Your task to perform on an android device: check storage Image 0: 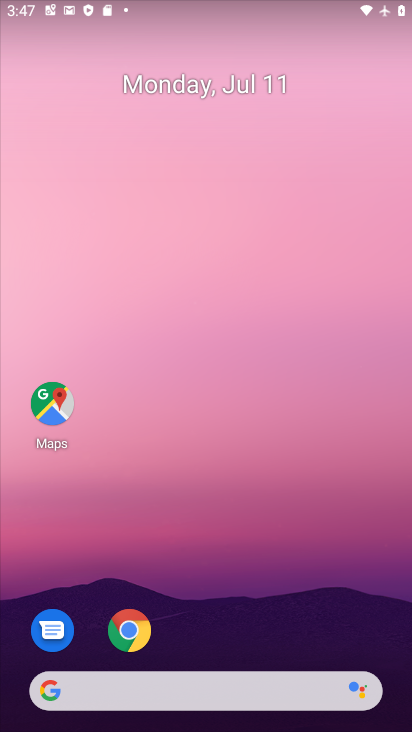
Step 0: drag from (290, 711) to (177, 289)
Your task to perform on an android device: check storage Image 1: 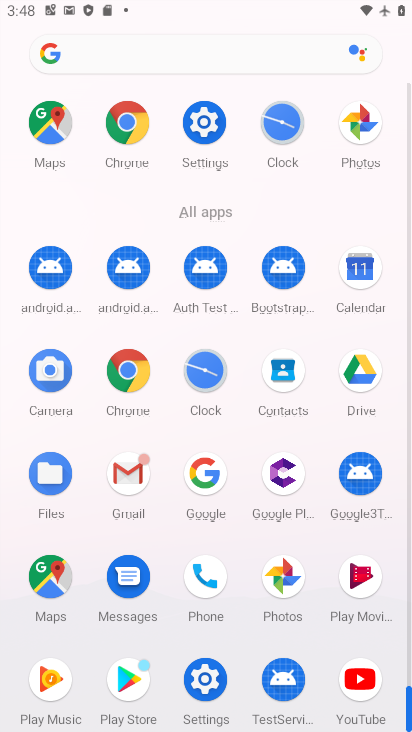
Step 1: click (198, 135)
Your task to perform on an android device: check storage Image 2: 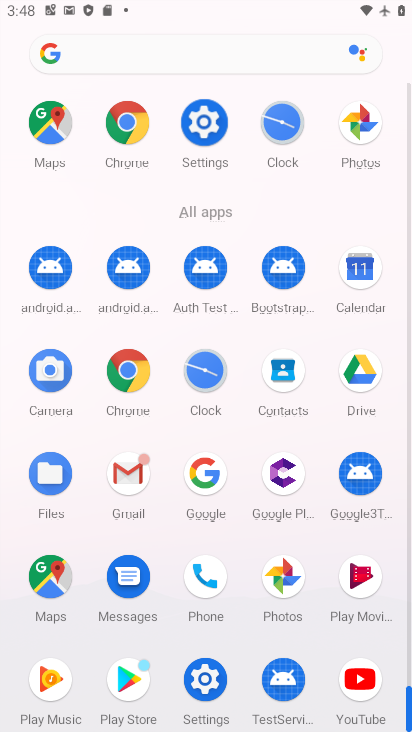
Step 2: click (201, 129)
Your task to perform on an android device: check storage Image 3: 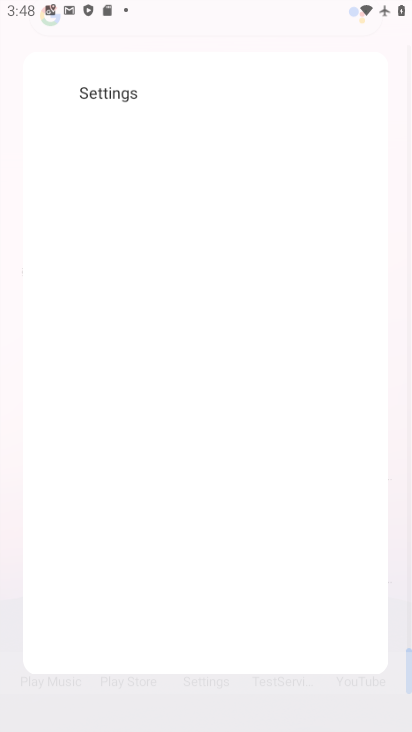
Step 3: click (202, 129)
Your task to perform on an android device: check storage Image 4: 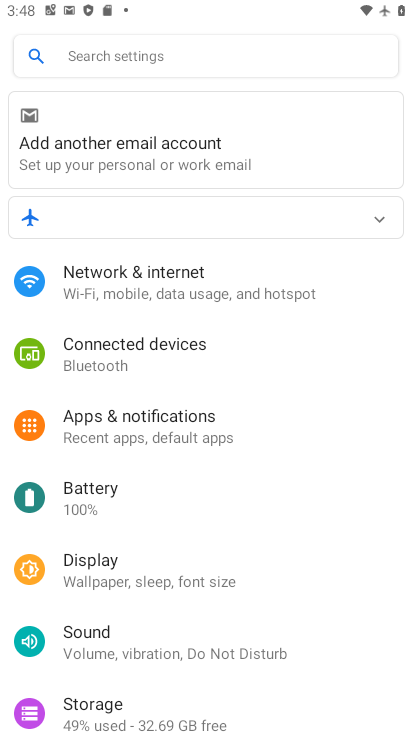
Step 4: drag from (161, 631) to (138, 358)
Your task to perform on an android device: check storage Image 5: 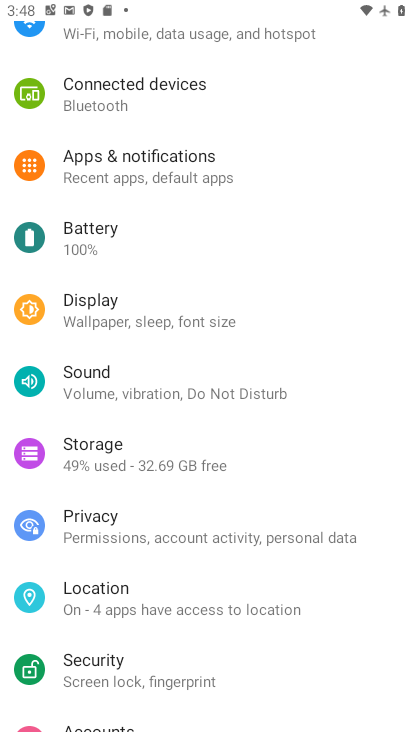
Step 5: drag from (166, 616) to (181, 388)
Your task to perform on an android device: check storage Image 6: 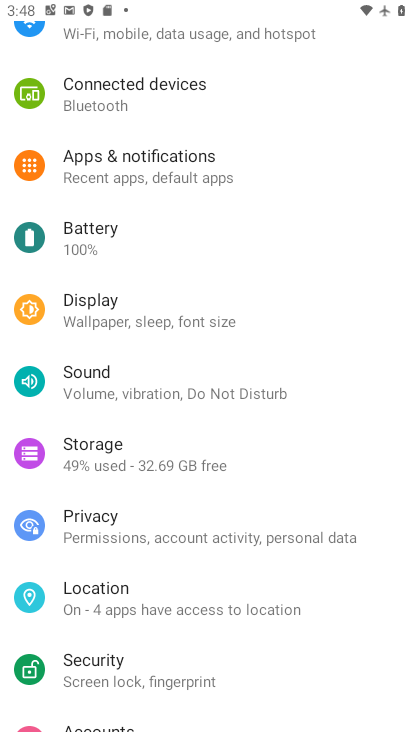
Step 6: click (104, 454)
Your task to perform on an android device: check storage Image 7: 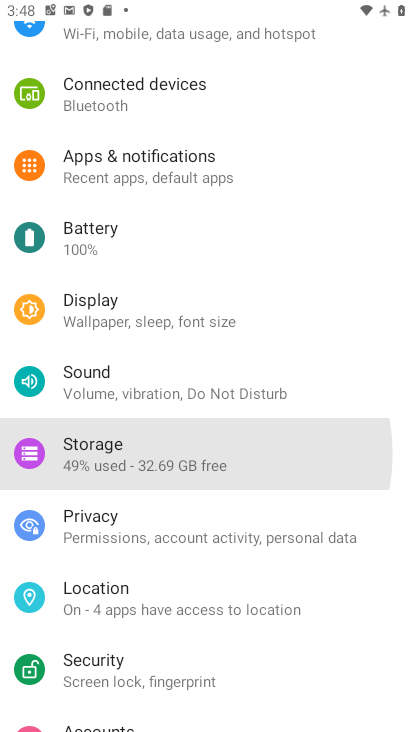
Step 7: click (104, 454)
Your task to perform on an android device: check storage Image 8: 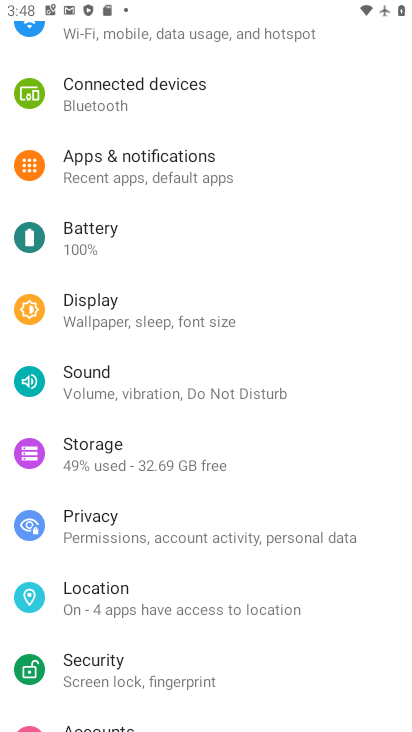
Step 8: click (104, 454)
Your task to perform on an android device: check storage Image 9: 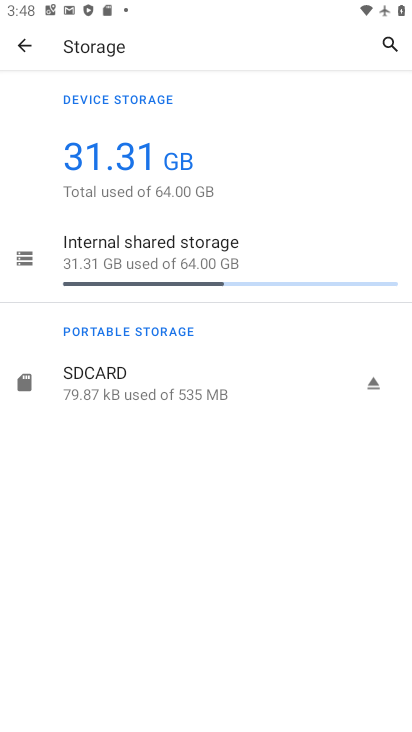
Step 9: task complete